Your task to perform on an android device: What is the news today? Image 0: 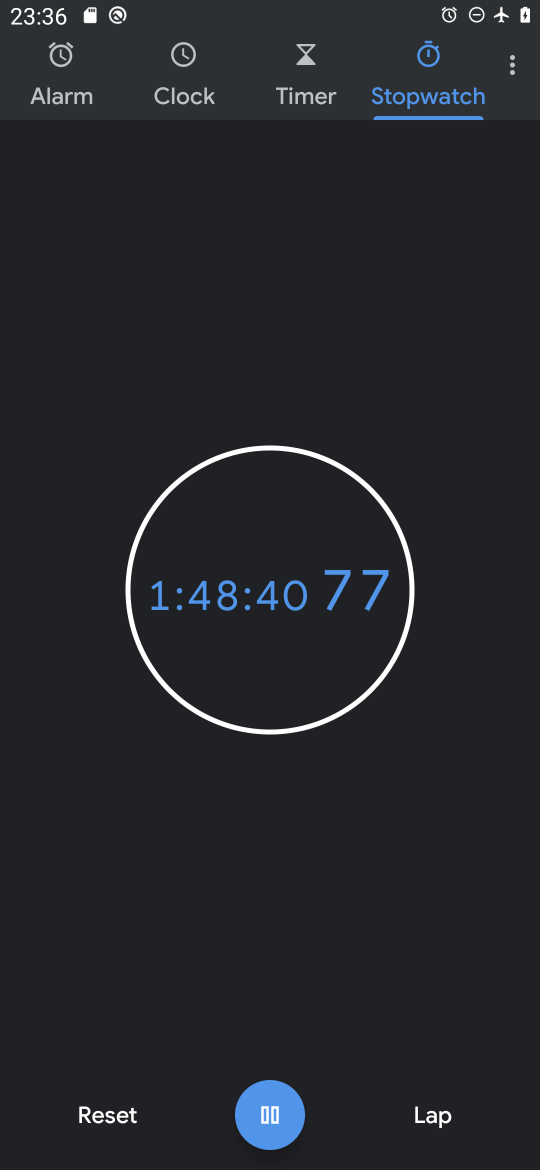
Step 0: press home button
Your task to perform on an android device: What is the news today? Image 1: 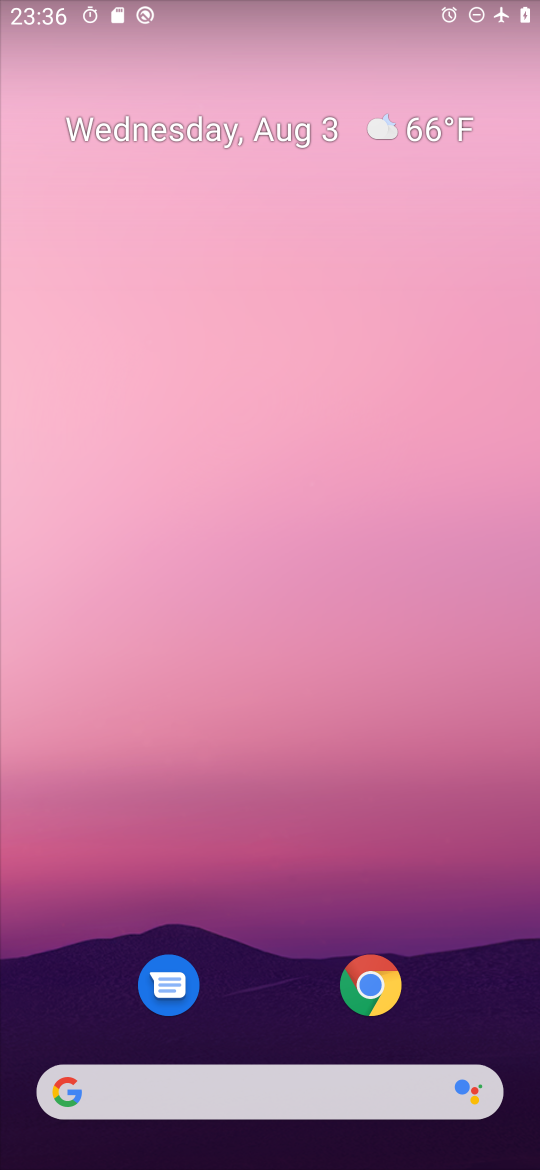
Step 1: drag from (263, 984) to (277, 482)
Your task to perform on an android device: What is the news today? Image 2: 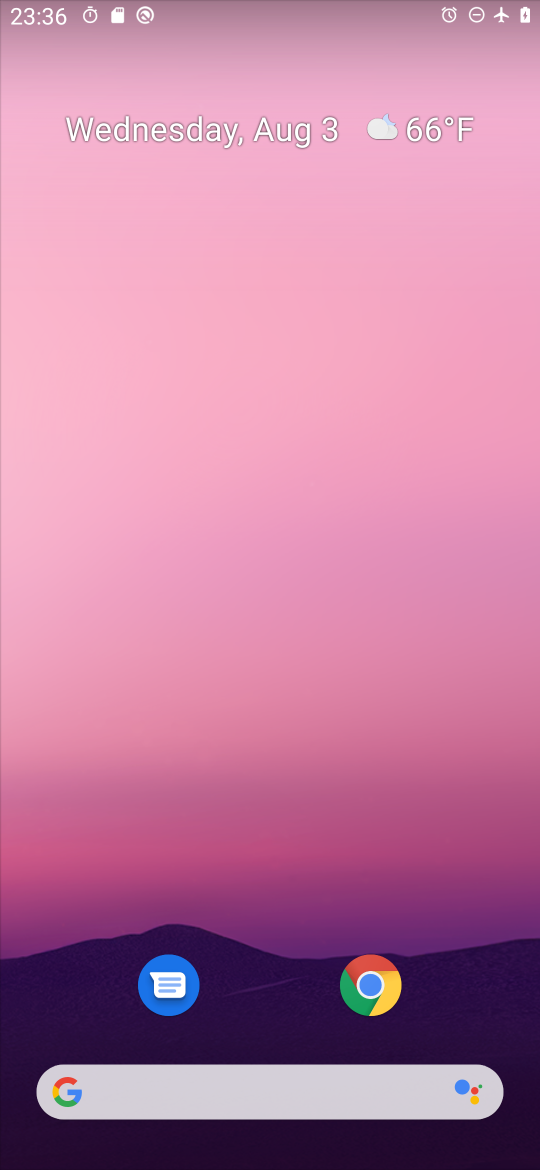
Step 2: drag from (289, 968) to (289, 417)
Your task to perform on an android device: What is the news today? Image 3: 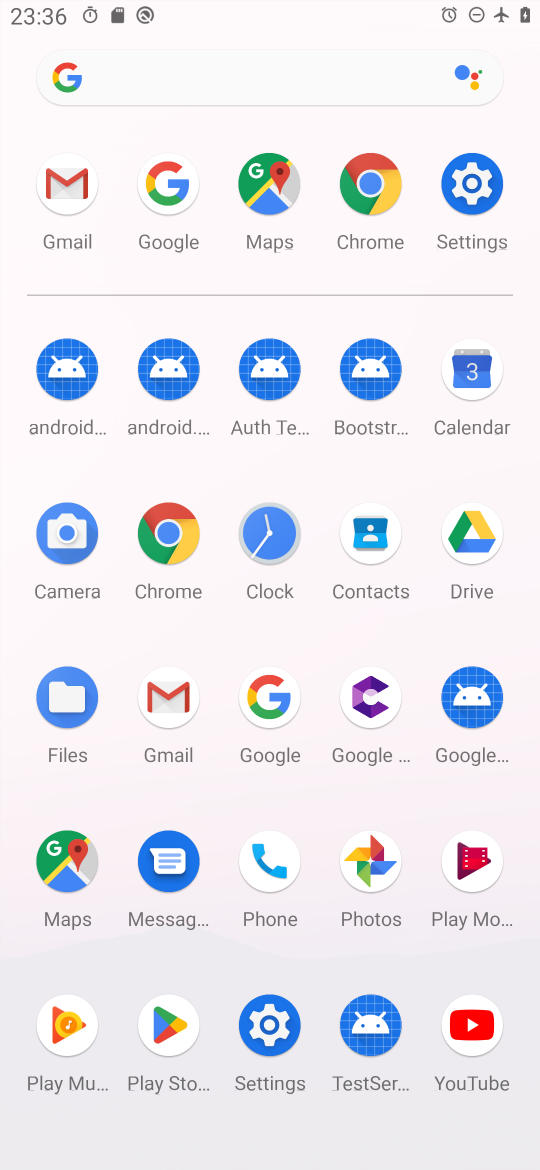
Step 3: click (276, 711)
Your task to perform on an android device: What is the news today? Image 4: 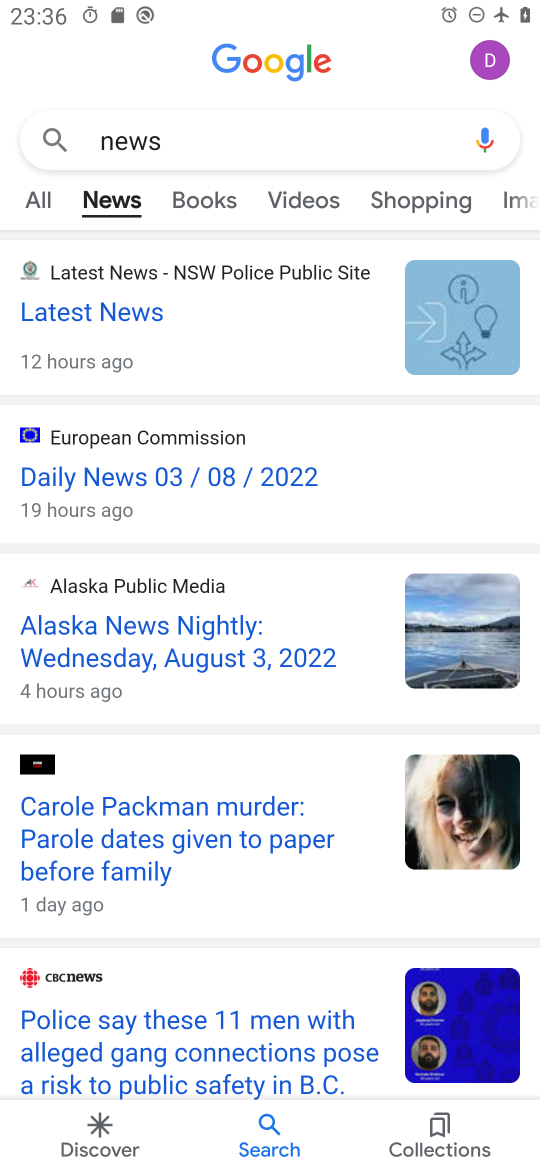
Step 4: task complete